Your task to perform on an android device: check android version Image 0: 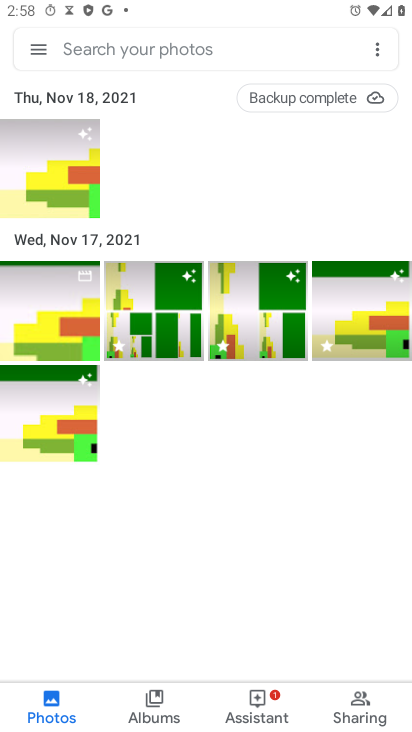
Step 0: press home button
Your task to perform on an android device: check android version Image 1: 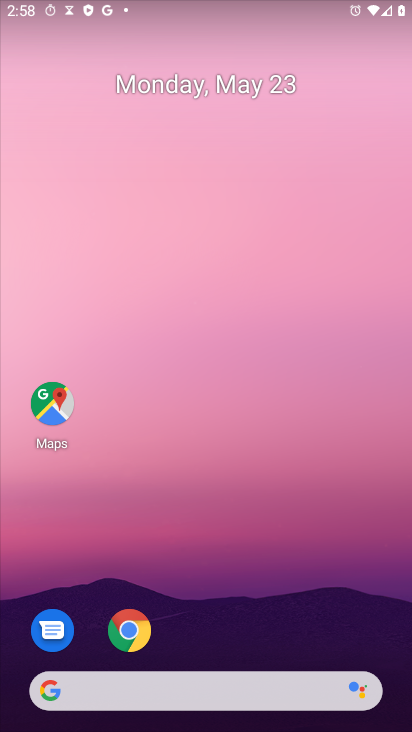
Step 1: drag from (315, 577) to (338, 75)
Your task to perform on an android device: check android version Image 2: 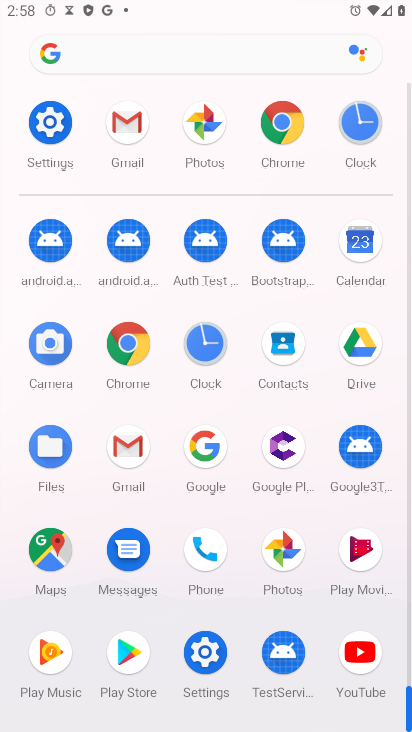
Step 2: click (68, 110)
Your task to perform on an android device: check android version Image 3: 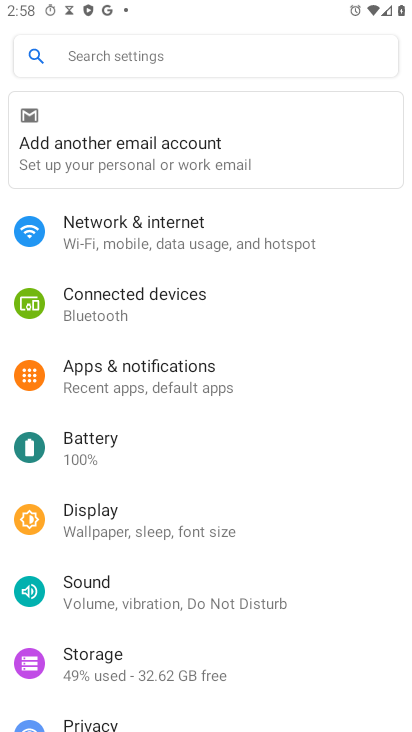
Step 3: drag from (270, 631) to (318, 151)
Your task to perform on an android device: check android version Image 4: 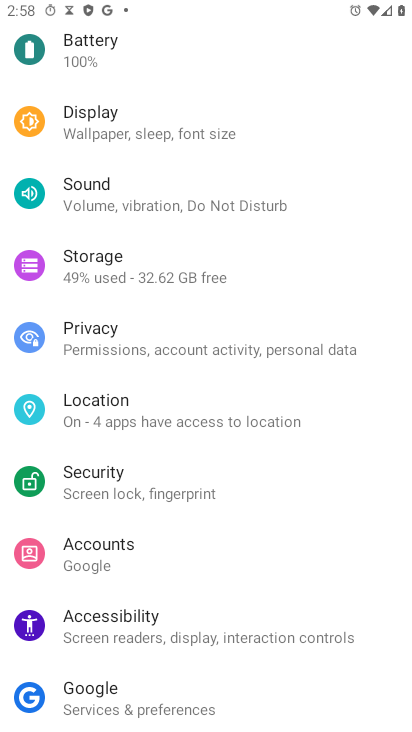
Step 4: drag from (258, 649) to (307, 174)
Your task to perform on an android device: check android version Image 5: 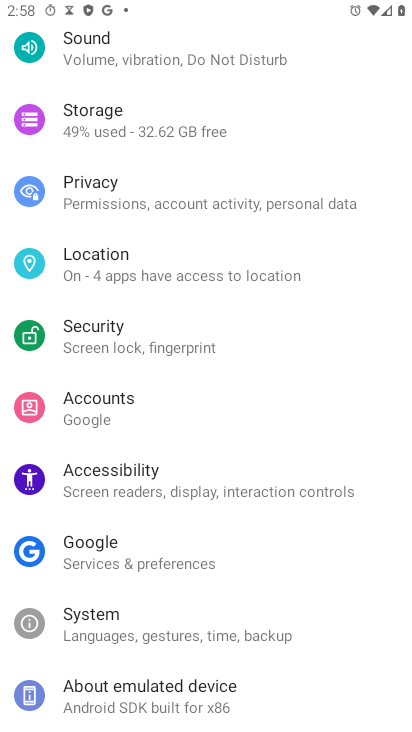
Step 5: click (128, 698)
Your task to perform on an android device: check android version Image 6: 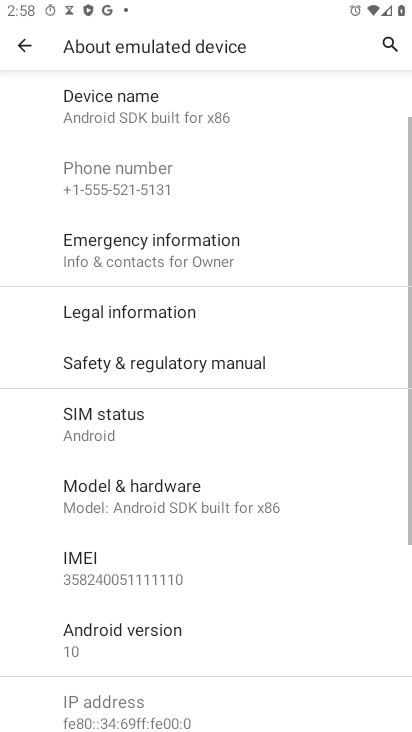
Step 6: drag from (150, 602) to (110, 170)
Your task to perform on an android device: check android version Image 7: 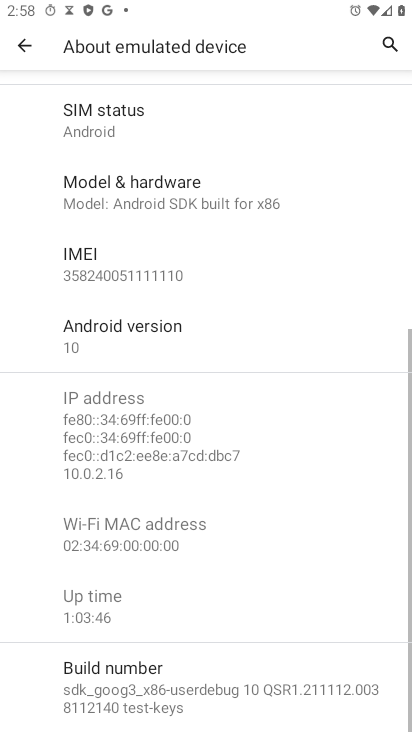
Step 7: click (120, 355)
Your task to perform on an android device: check android version Image 8: 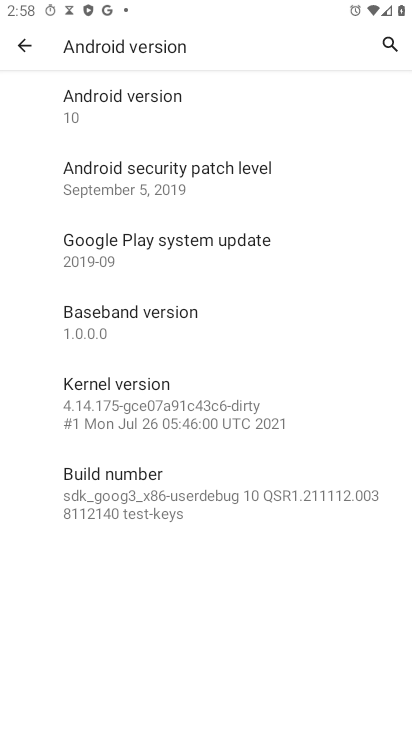
Step 8: click (141, 108)
Your task to perform on an android device: check android version Image 9: 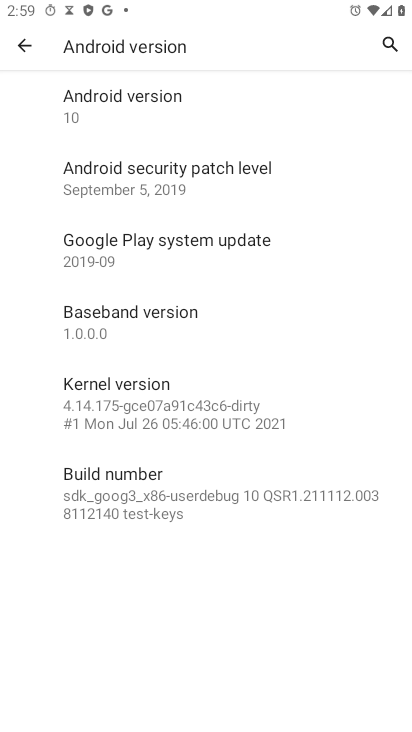
Step 9: task complete